Your task to perform on an android device: turn off priority inbox in the gmail app Image 0: 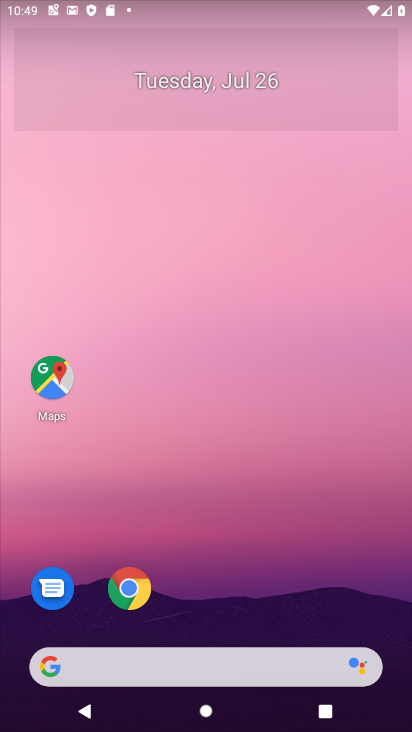
Step 0: drag from (220, 570) to (218, 153)
Your task to perform on an android device: turn off priority inbox in the gmail app Image 1: 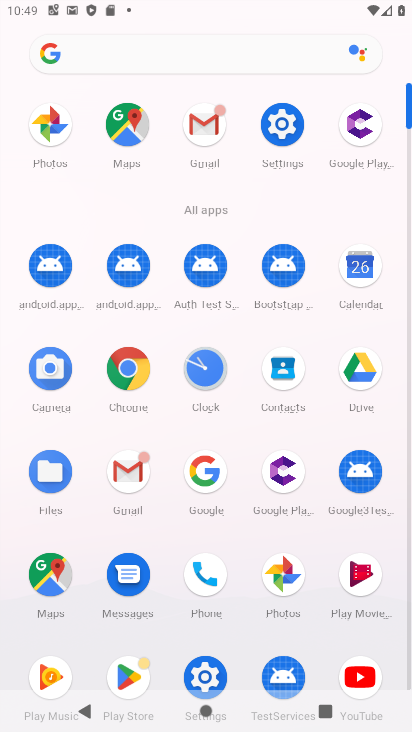
Step 1: click (120, 484)
Your task to perform on an android device: turn off priority inbox in the gmail app Image 2: 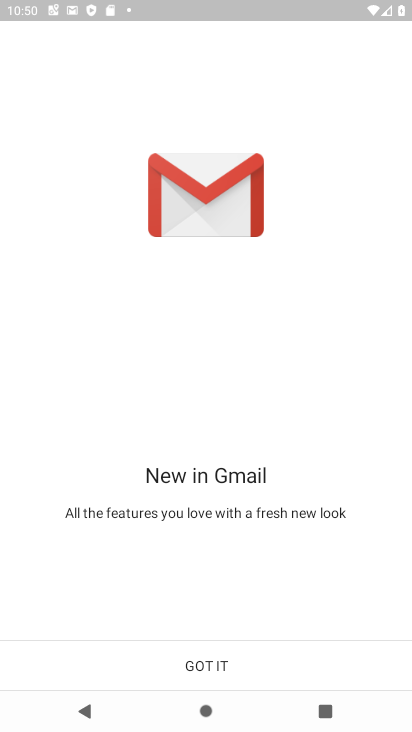
Step 2: click (195, 667)
Your task to perform on an android device: turn off priority inbox in the gmail app Image 3: 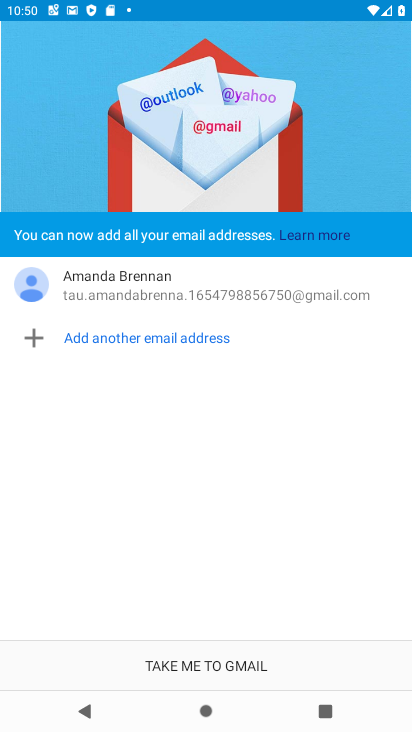
Step 3: click (199, 660)
Your task to perform on an android device: turn off priority inbox in the gmail app Image 4: 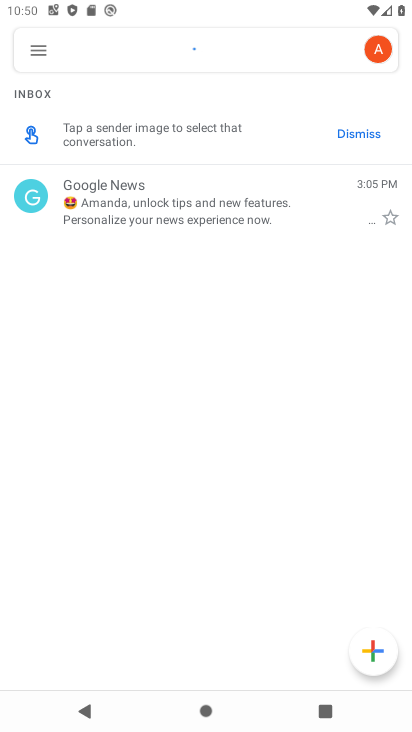
Step 4: task complete